Your task to perform on an android device: Go to Wikipedia Image 0: 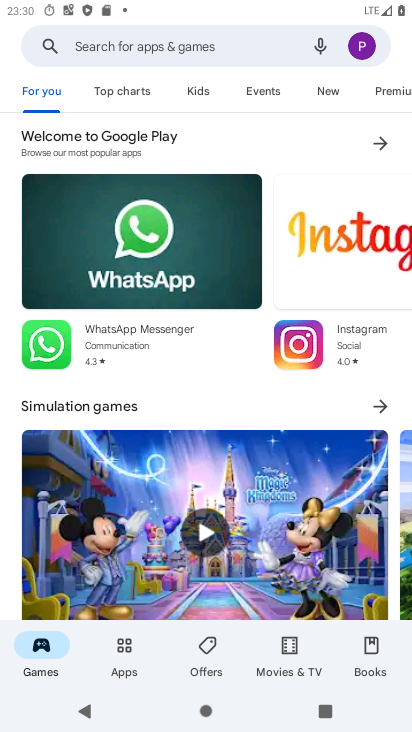
Step 0: press home button
Your task to perform on an android device: Go to Wikipedia Image 1: 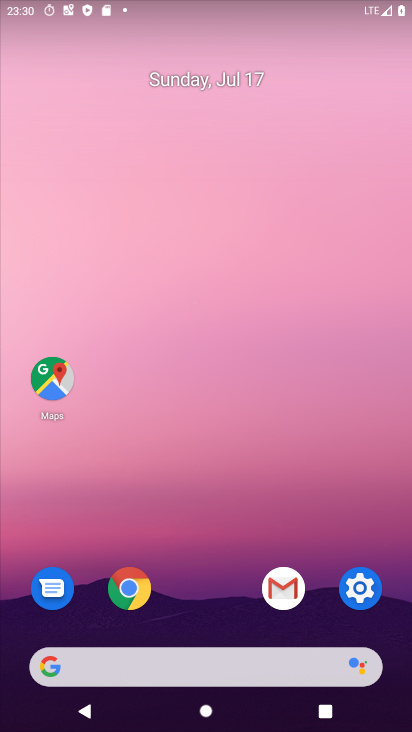
Step 1: click (123, 590)
Your task to perform on an android device: Go to Wikipedia Image 2: 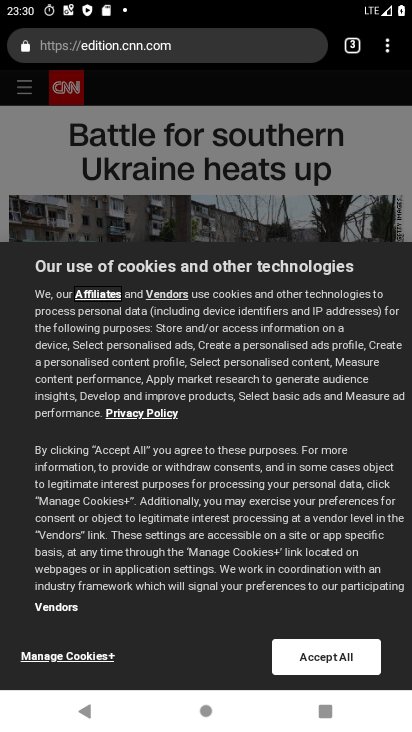
Step 2: click (362, 45)
Your task to perform on an android device: Go to Wikipedia Image 3: 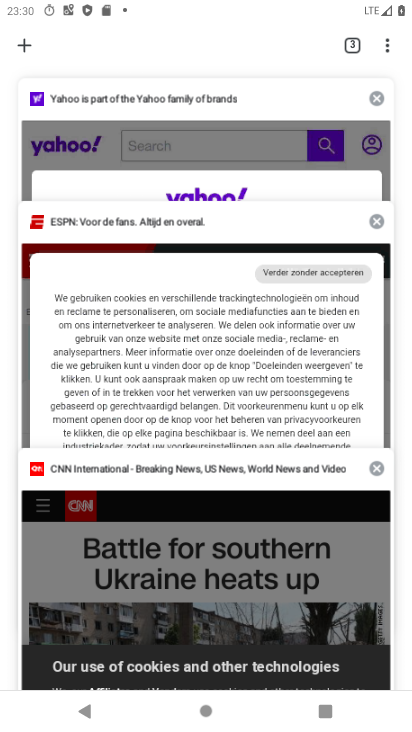
Step 3: click (32, 51)
Your task to perform on an android device: Go to Wikipedia Image 4: 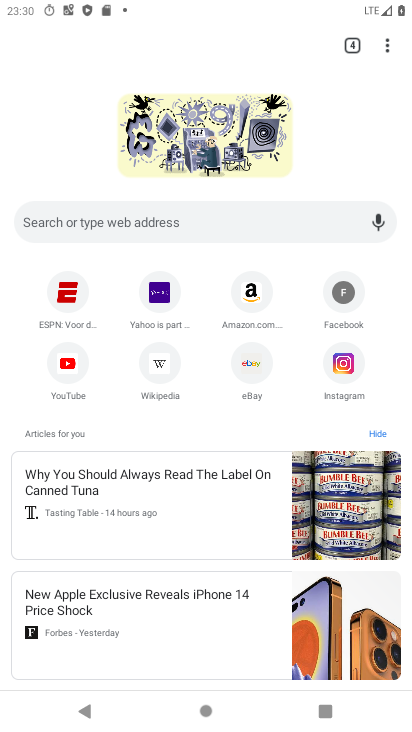
Step 4: click (155, 372)
Your task to perform on an android device: Go to Wikipedia Image 5: 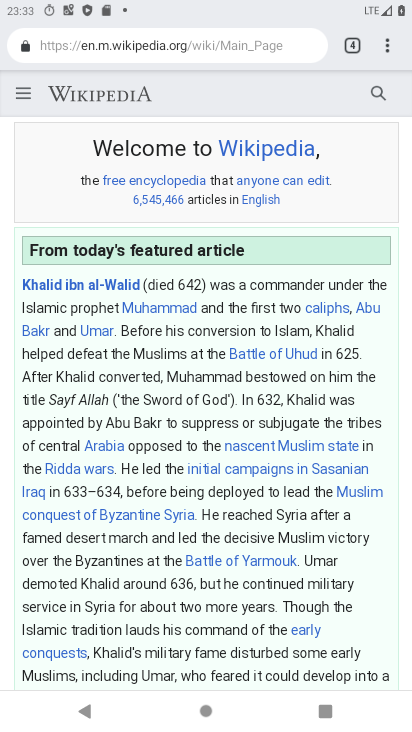
Step 5: task complete